Your task to perform on an android device: Turn off the flashlight Image 0: 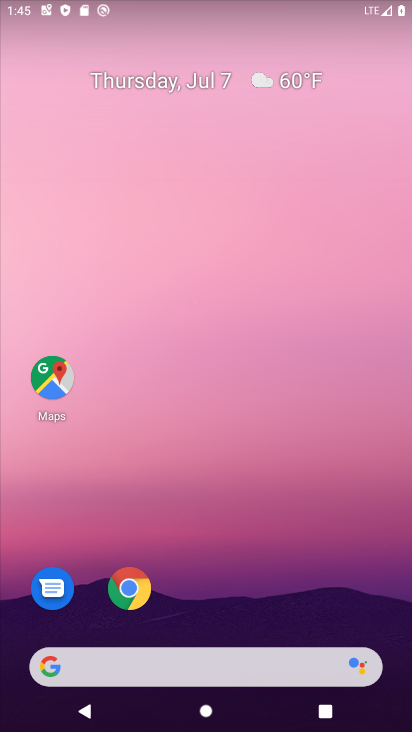
Step 0: drag from (231, 616) to (267, 270)
Your task to perform on an android device: Turn off the flashlight Image 1: 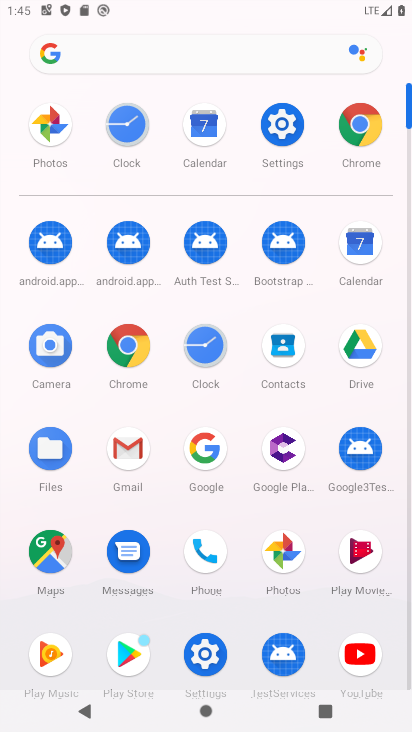
Step 1: click (276, 123)
Your task to perform on an android device: Turn off the flashlight Image 2: 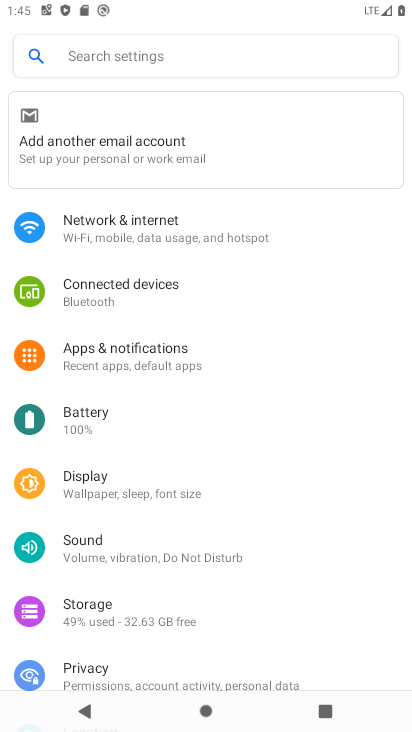
Step 2: task complete